Your task to perform on an android device: What's the weather going to be tomorrow? Image 0: 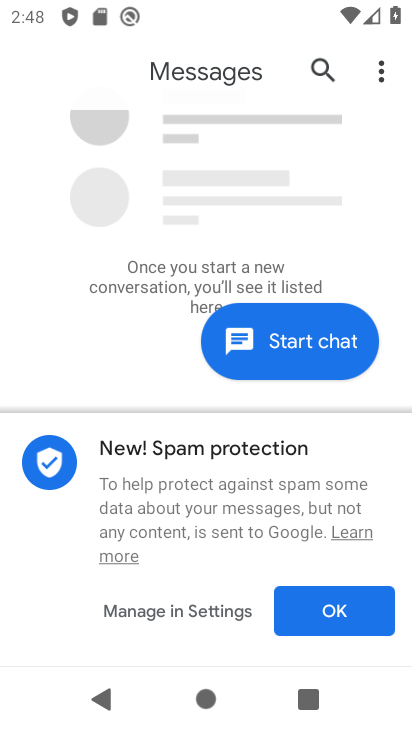
Step 0: press home button
Your task to perform on an android device: What's the weather going to be tomorrow? Image 1: 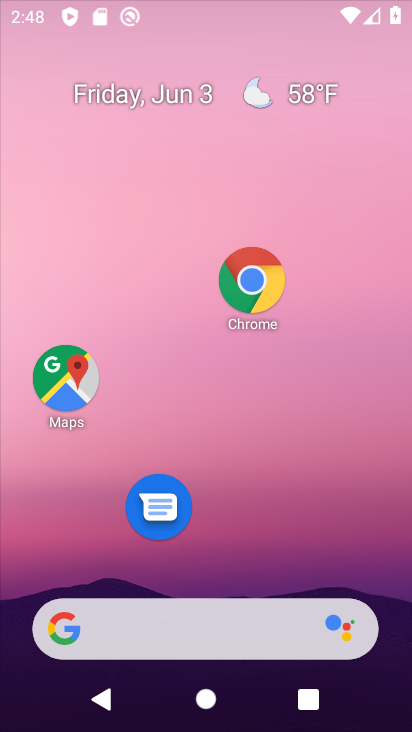
Step 1: drag from (267, 556) to (277, 56)
Your task to perform on an android device: What's the weather going to be tomorrow? Image 2: 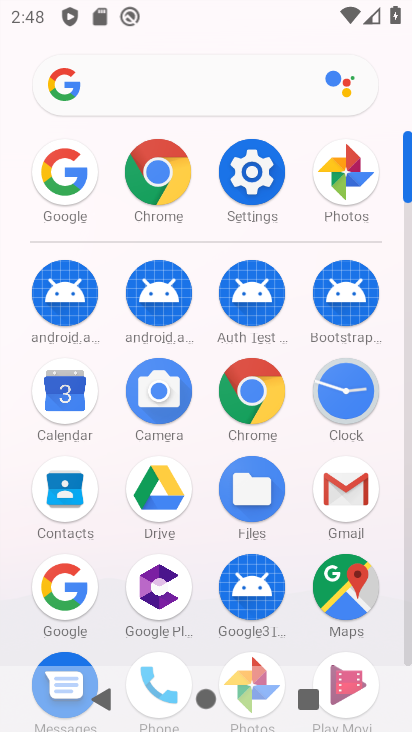
Step 2: click (66, 582)
Your task to perform on an android device: What's the weather going to be tomorrow? Image 3: 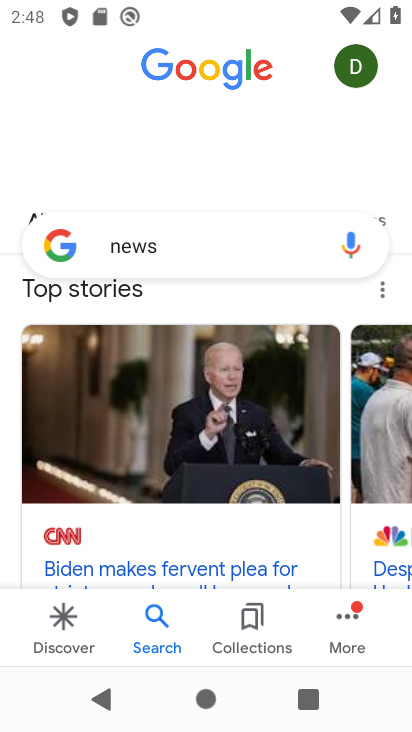
Step 3: click (210, 235)
Your task to perform on an android device: What's the weather going to be tomorrow? Image 4: 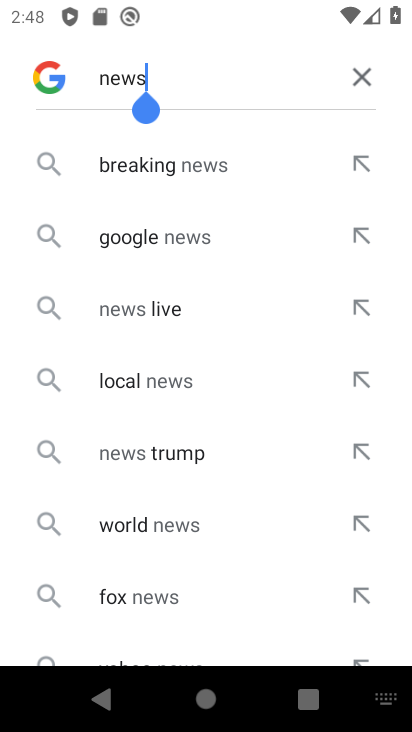
Step 4: click (354, 86)
Your task to perform on an android device: What's the weather going to be tomorrow? Image 5: 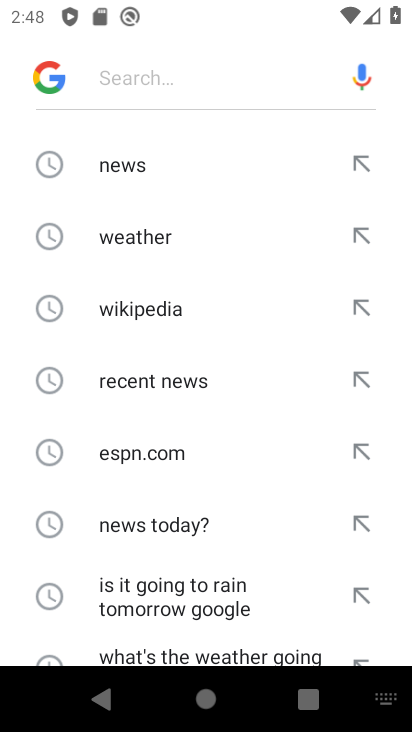
Step 5: drag from (200, 554) to (193, 354)
Your task to perform on an android device: What's the weather going to be tomorrow? Image 6: 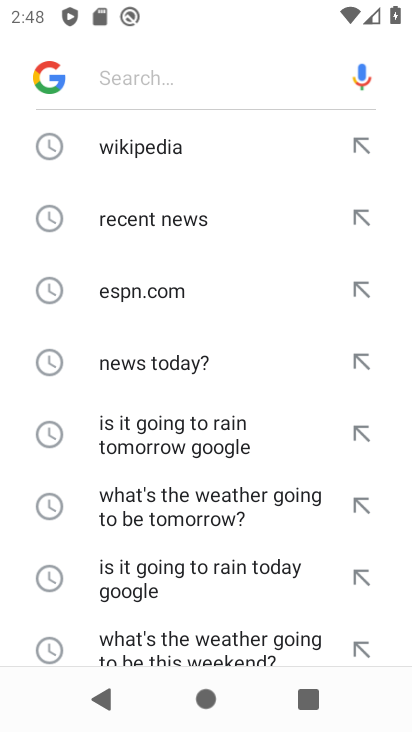
Step 6: click (220, 513)
Your task to perform on an android device: What's the weather going to be tomorrow? Image 7: 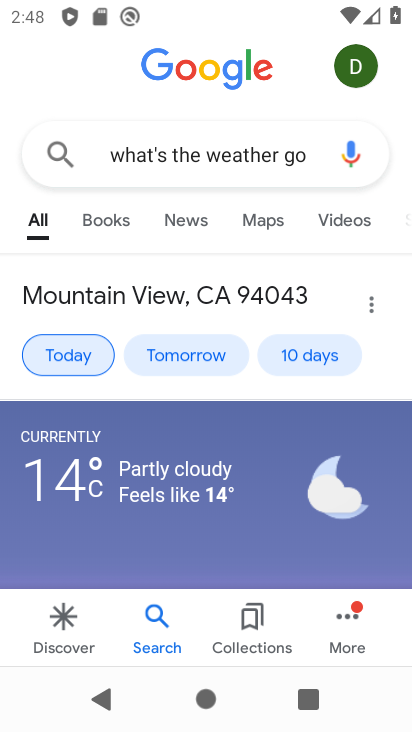
Step 7: click (193, 350)
Your task to perform on an android device: What's the weather going to be tomorrow? Image 8: 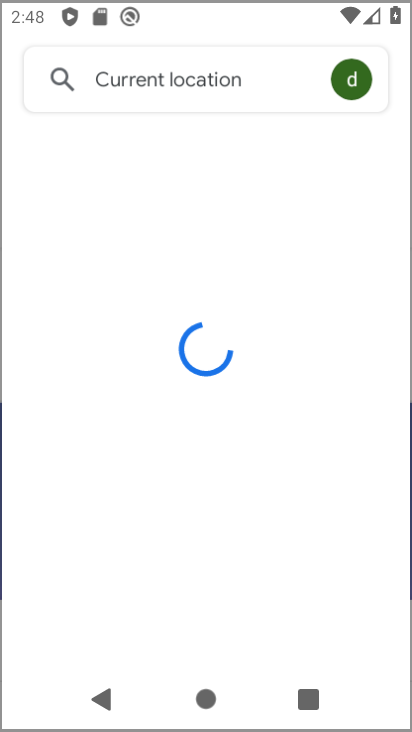
Step 8: click (192, 359)
Your task to perform on an android device: What's the weather going to be tomorrow? Image 9: 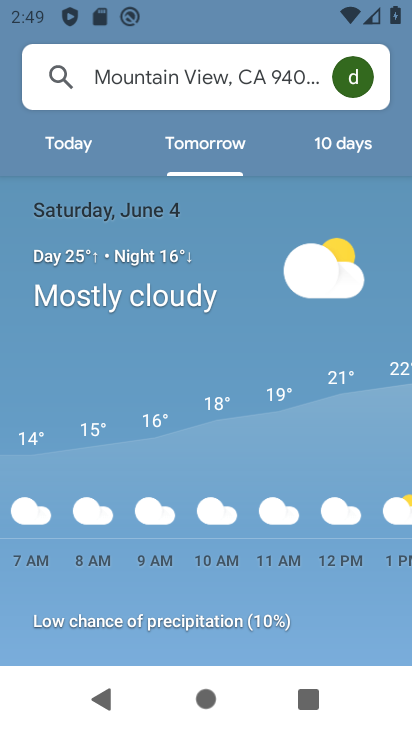
Step 9: task complete